Your task to perform on an android device: manage bookmarks in the chrome app Image 0: 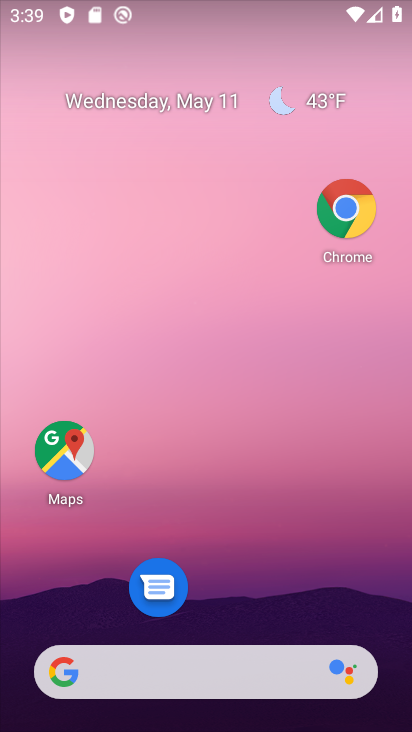
Step 0: drag from (312, 480) to (312, 366)
Your task to perform on an android device: manage bookmarks in the chrome app Image 1: 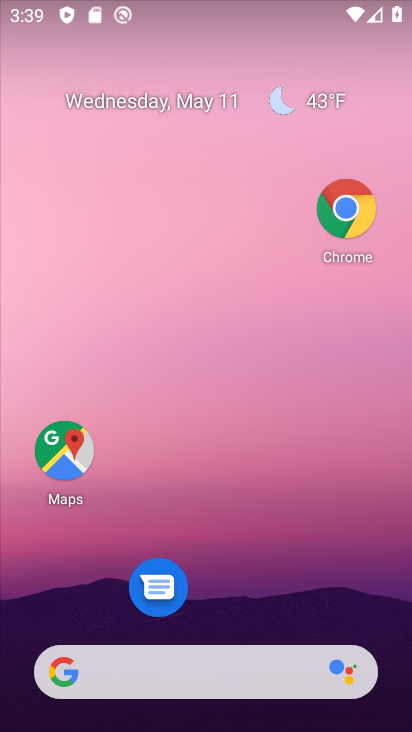
Step 1: click (350, 214)
Your task to perform on an android device: manage bookmarks in the chrome app Image 2: 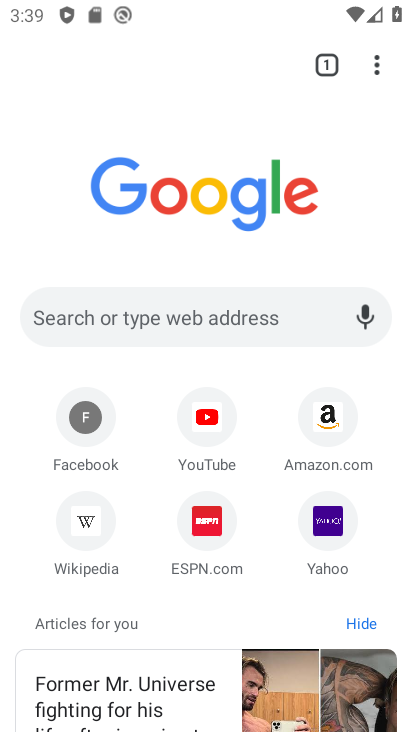
Step 2: drag from (240, 561) to (333, 204)
Your task to perform on an android device: manage bookmarks in the chrome app Image 3: 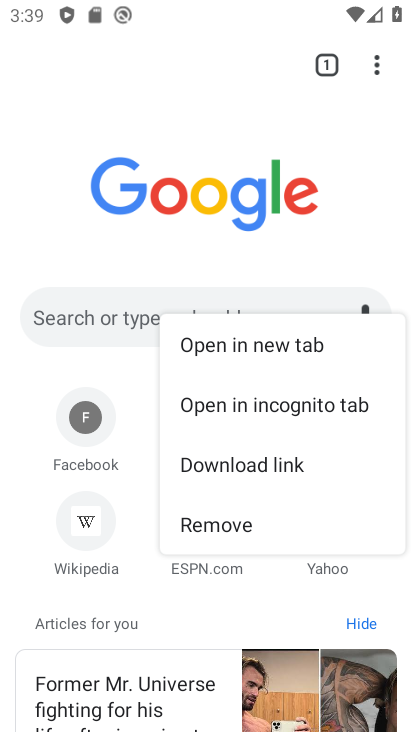
Step 3: click (348, 153)
Your task to perform on an android device: manage bookmarks in the chrome app Image 4: 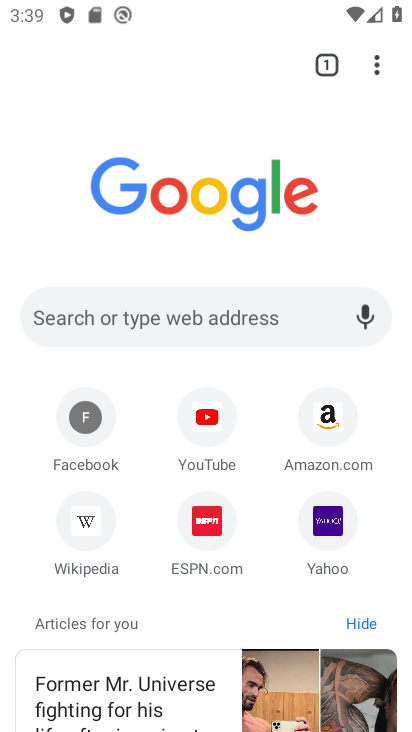
Step 4: task complete